Your task to perform on an android device: Turn on the flashlight Image 0: 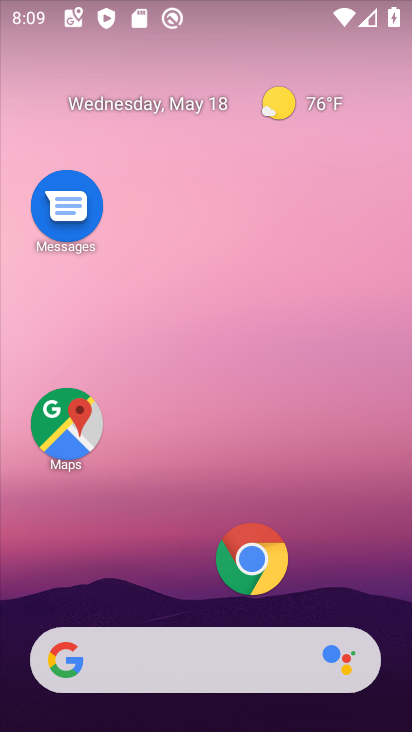
Step 0: drag from (203, 621) to (139, 26)
Your task to perform on an android device: Turn on the flashlight Image 1: 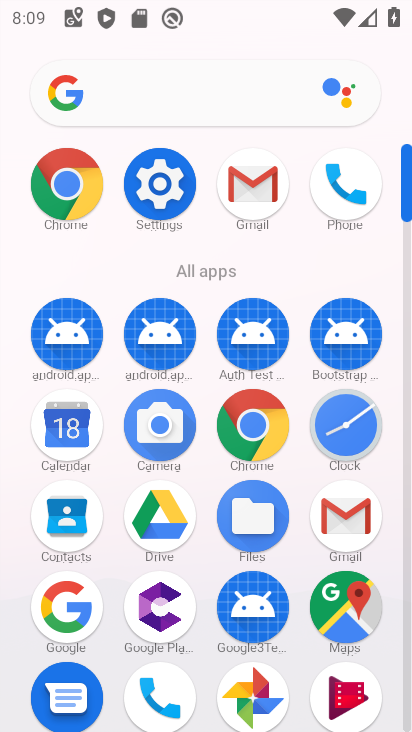
Step 1: click (148, 188)
Your task to perform on an android device: Turn on the flashlight Image 2: 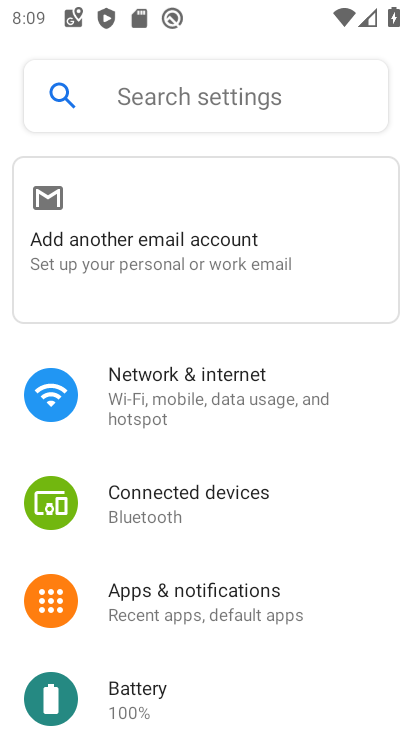
Step 2: task complete